Your task to perform on an android device: What's the weather today? Image 0: 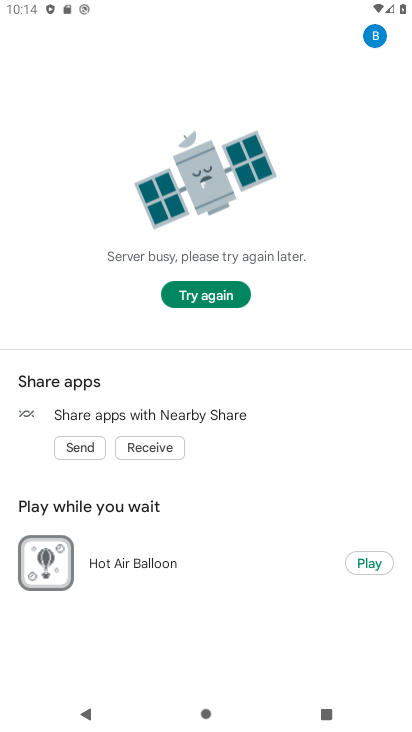
Step 0: press home button
Your task to perform on an android device: What's the weather today? Image 1: 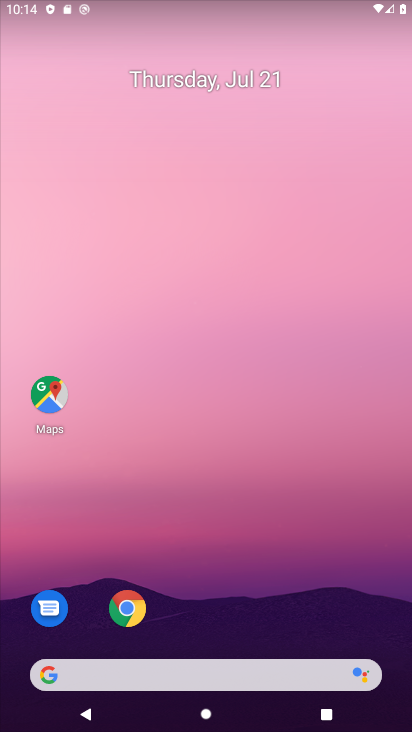
Step 1: click (193, 673)
Your task to perform on an android device: What's the weather today? Image 2: 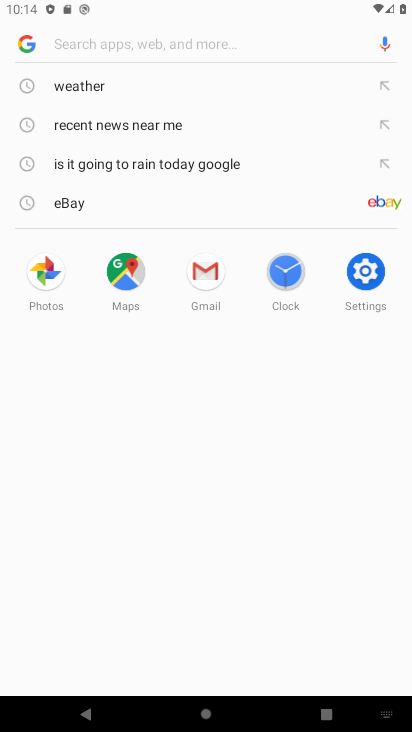
Step 2: click (76, 77)
Your task to perform on an android device: What's the weather today? Image 3: 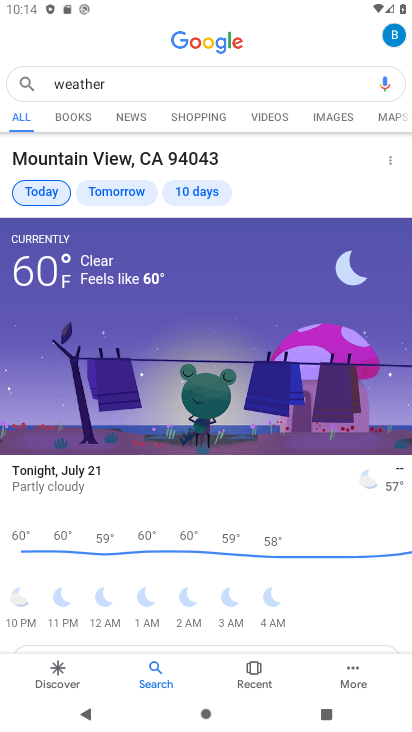
Step 3: task complete